Your task to perform on an android device: What is the news today? Image 0: 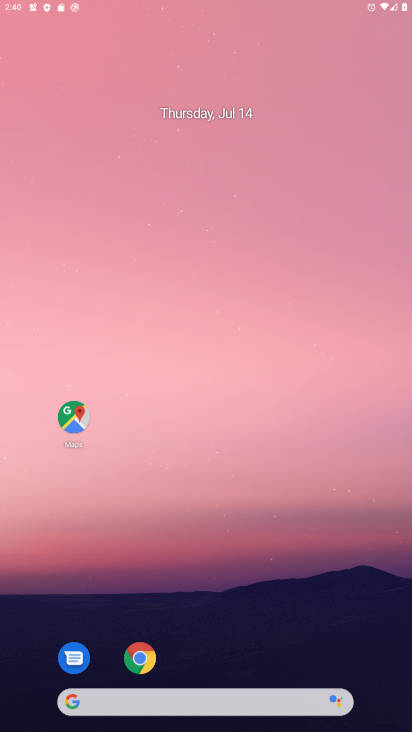
Step 0: press home button
Your task to perform on an android device: What is the news today? Image 1: 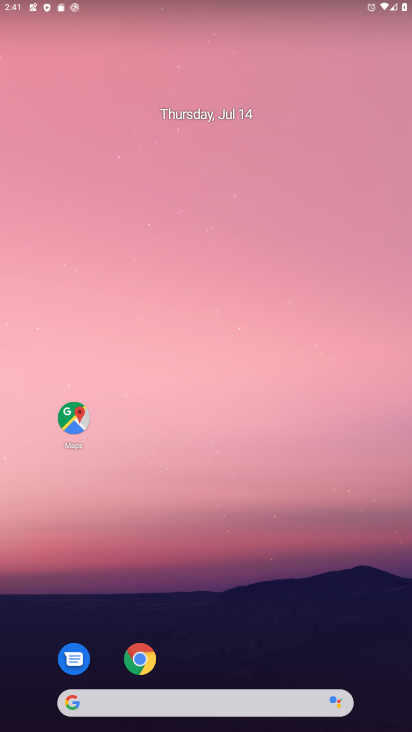
Step 1: drag from (278, 640) to (242, 26)
Your task to perform on an android device: What is the news today? Image 2: 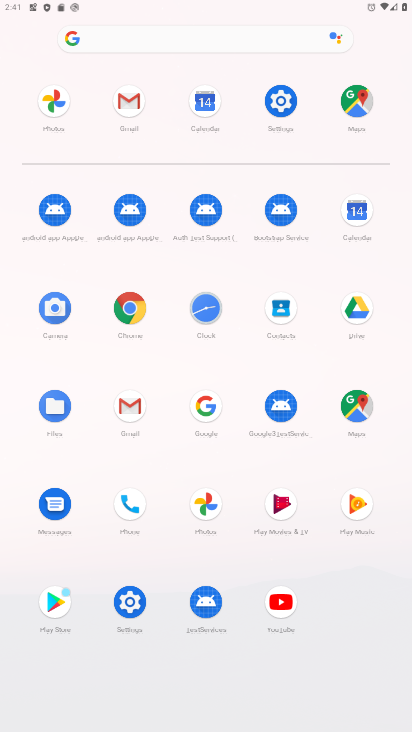
Step 2: click (204, 402)
Your task to perform on an android device: What is the news today? Image 3: 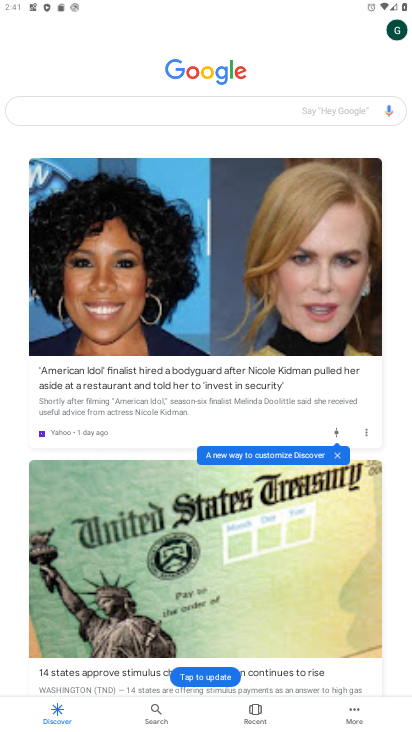
Step 3: type "news today?"
Your task to perform on an android device: What is the news today? Image 4: 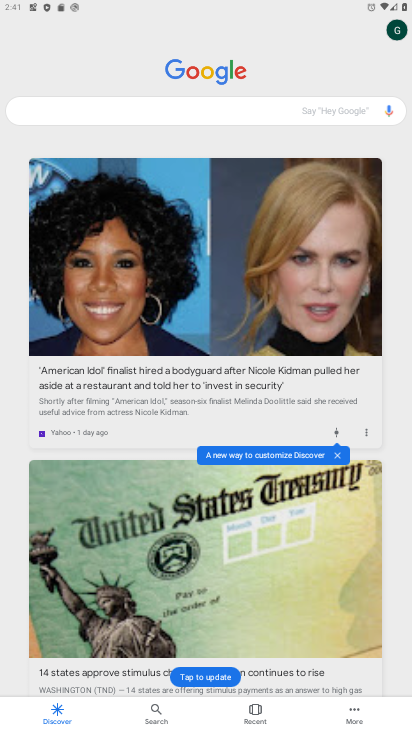
Step 4: press enter
Your task to perform on an android device: What is the news today? Image 5: 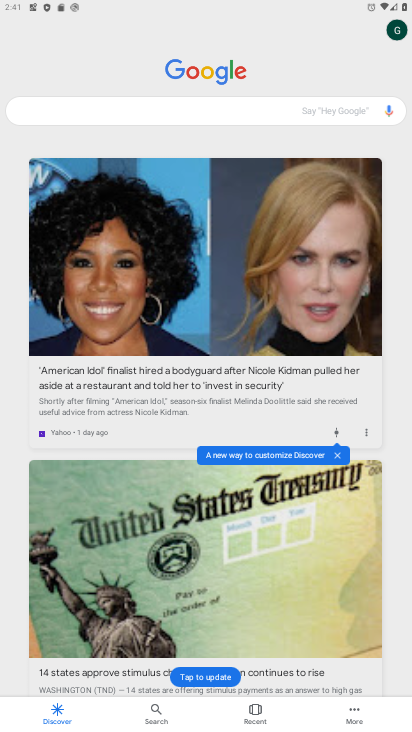
Step 5: click (110, 107)
Your task to perform on an android device: What is the news today? Image 6: 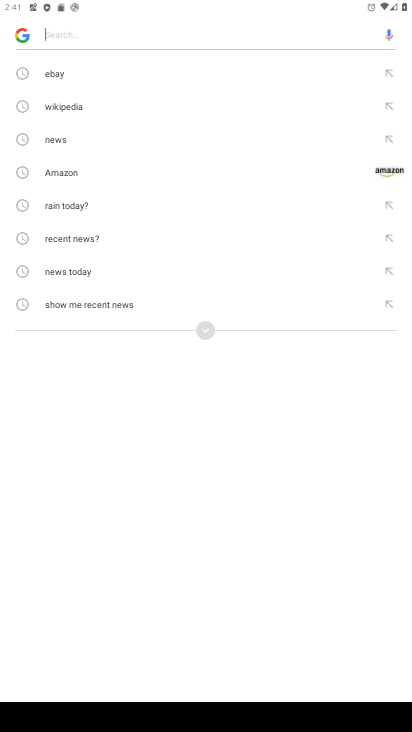
Step 6: click (82, 272)
Your task to perform on an android device: What is the news today? Image 7: 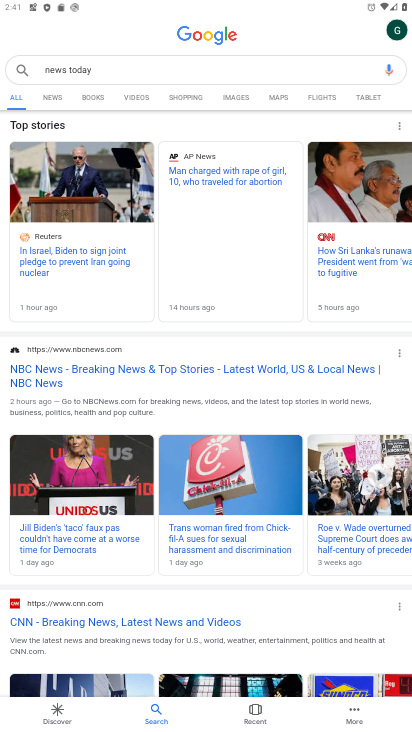
Step 7: task complete